Your task to perform on an android device: turn on javascript in the chrome app Image 0: 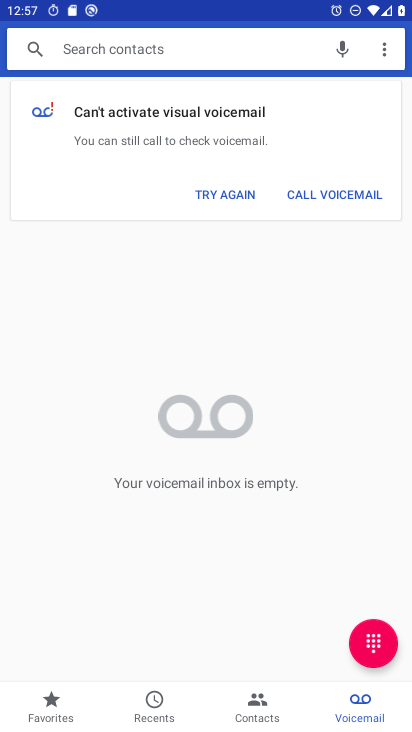
Step 0: press home button
Your task to perform on an android device: turn on javascript in the chrome app Image 1: 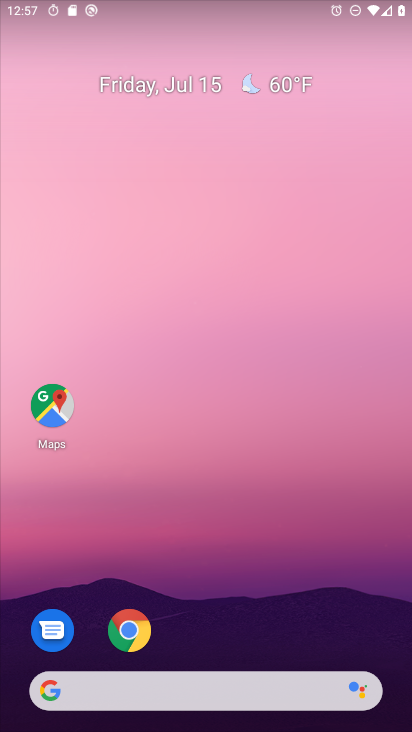
Step 1: click (123, 627)
Your task to perform on an android device: turn on javascript in the chrome app Image 2: 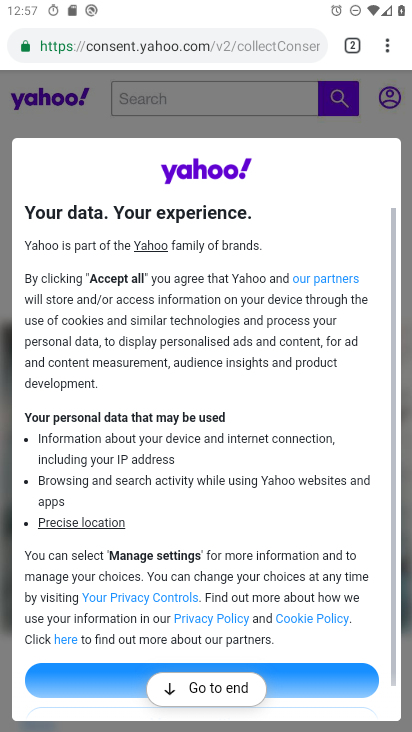
Step 2: click (391, 47)
Your task to perform on an android device: turn on javascript in the chrome app Image 3: 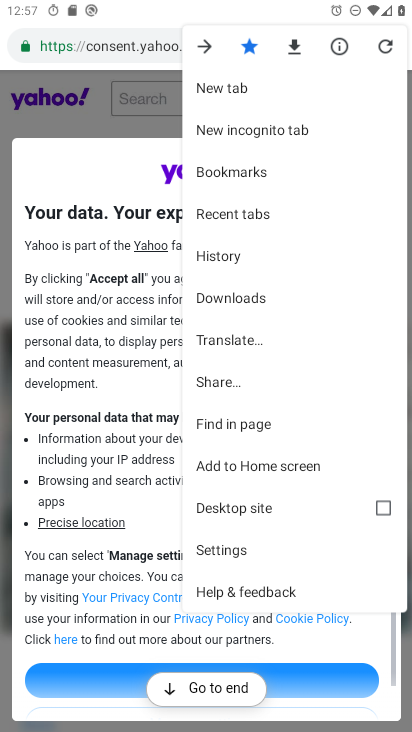
Step 3: click (238, 556)
Your task to perform on an android device: turn on javascript in the chrome app Image 4: 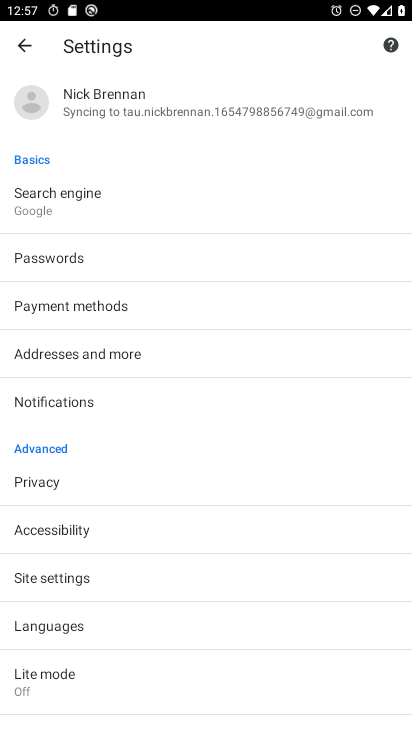
Step 4: click (41, 589)
Your task to perform on an android device: turn on javascript in the chrome app Image 5: 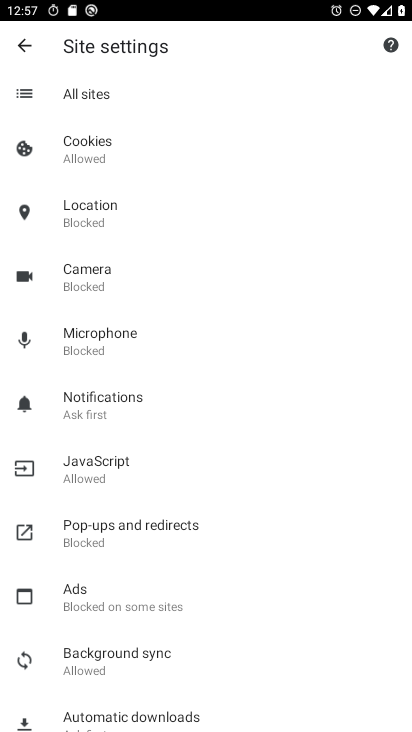
Step 5: click (93, 466)
Your task to perform on an android device: turn on javascript in the chrome app Image 6: 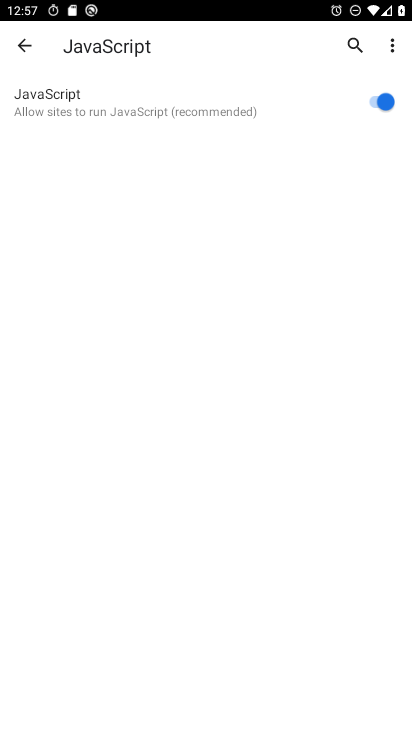
Step 6: task complete